Your task to perform on an android device: What is the news today? Image 0: 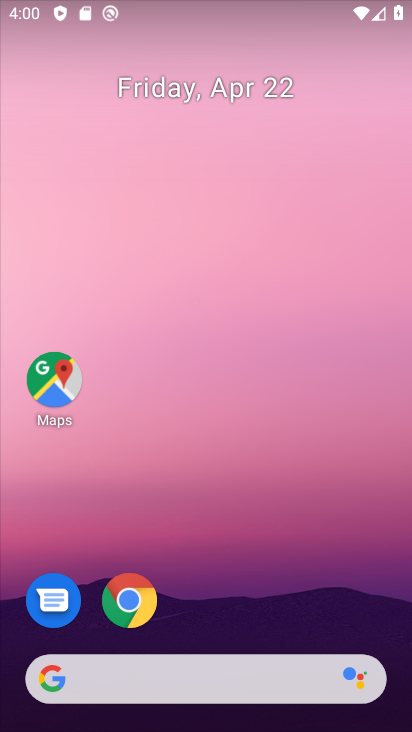
Step 0: drag from (257, 594) to (303, 52)
Your task to perform on an android device: What is the news today? Image 1: 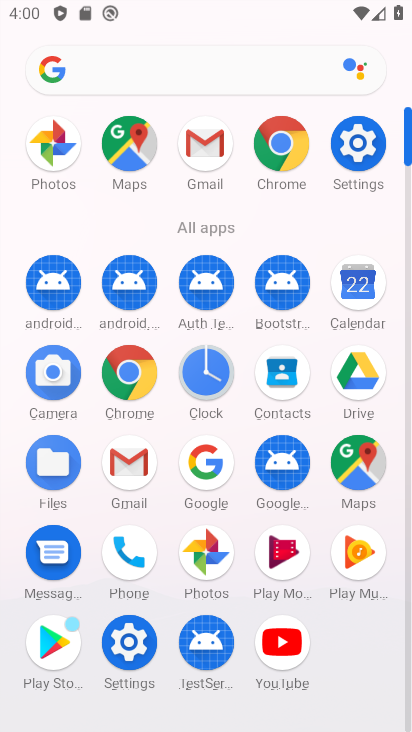
Step 1: click (205, 458)
Your task to perform on an android device: What is the news today? Image 2: 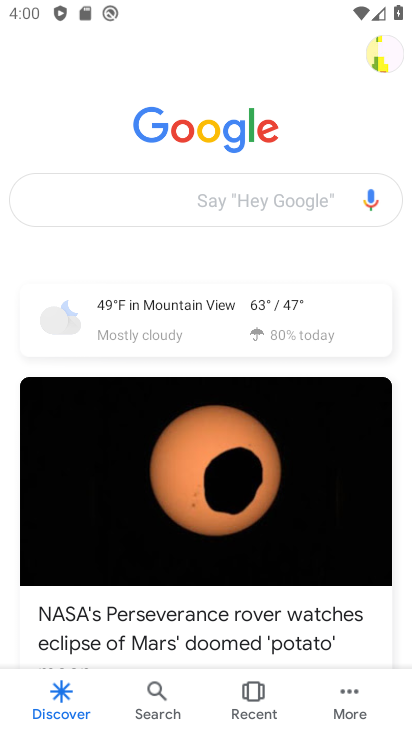
Step 2: drag from (255, 524) to (346, 303)
Your task to perform on an android device: What is the news today? Image 3: 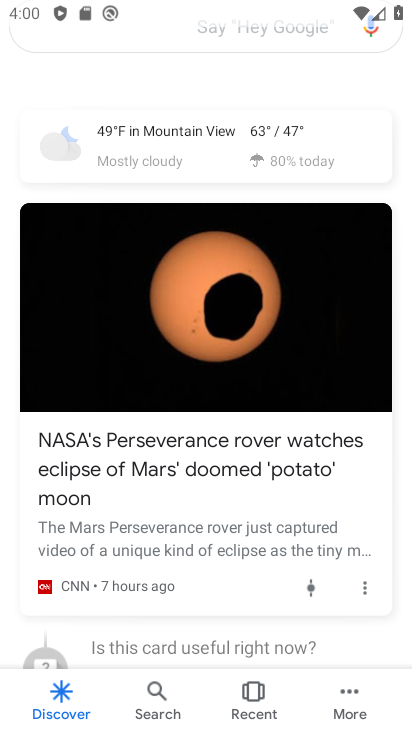
Step 3: click (213, 473)
Your task to perform on an android device: What is the news today? Image 4: 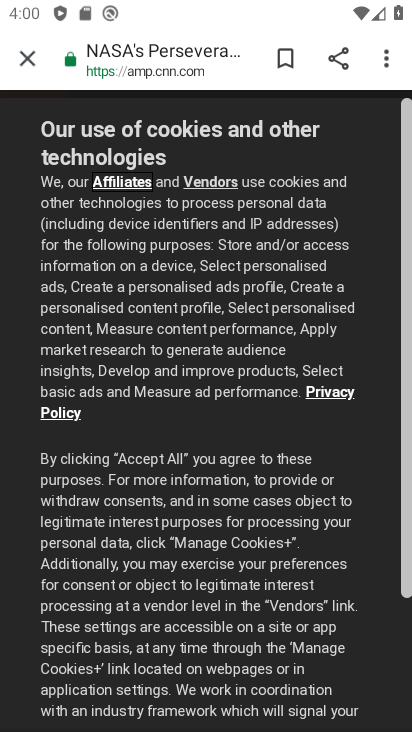
Step 4: task complete